Your task to perform on an android device: install app "Speedtest by Ookla" Image 0: 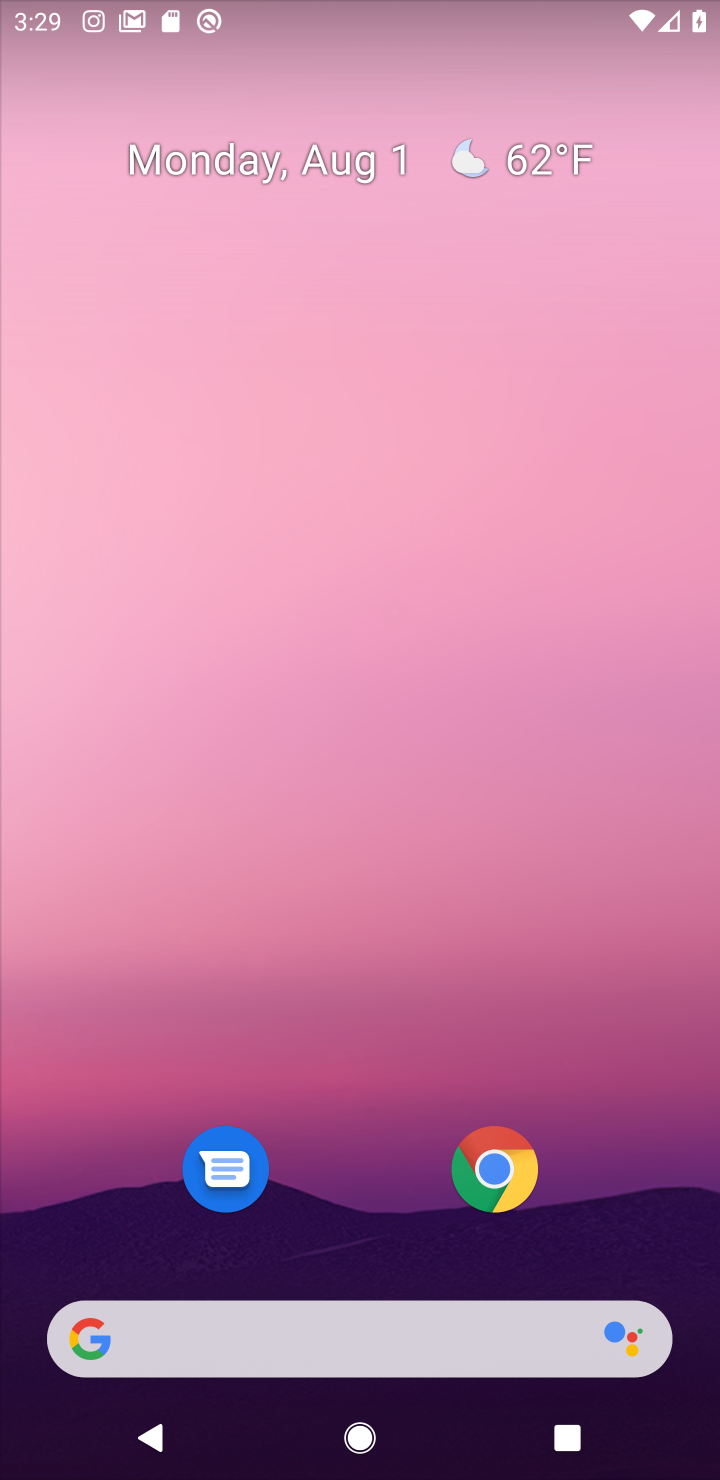
Step 0: drag from (347, 1233) to (344, 486)
Your task to perform on an android device: install app "Speedtest by Ookla" Image 1: 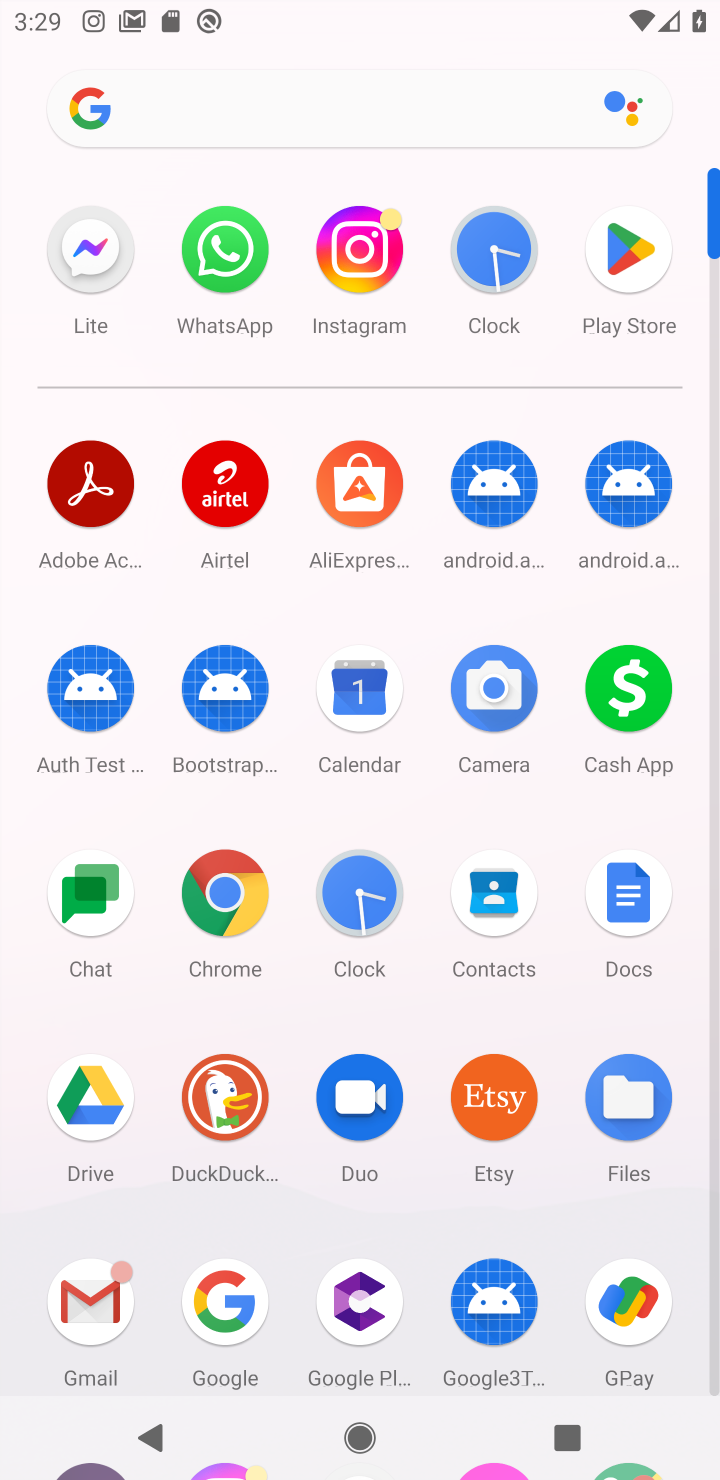
Step 1: drag from (544, 880) to (536, 744)
Your task to perform on an android device: install app "Speedtest by Ookla" Image 2: 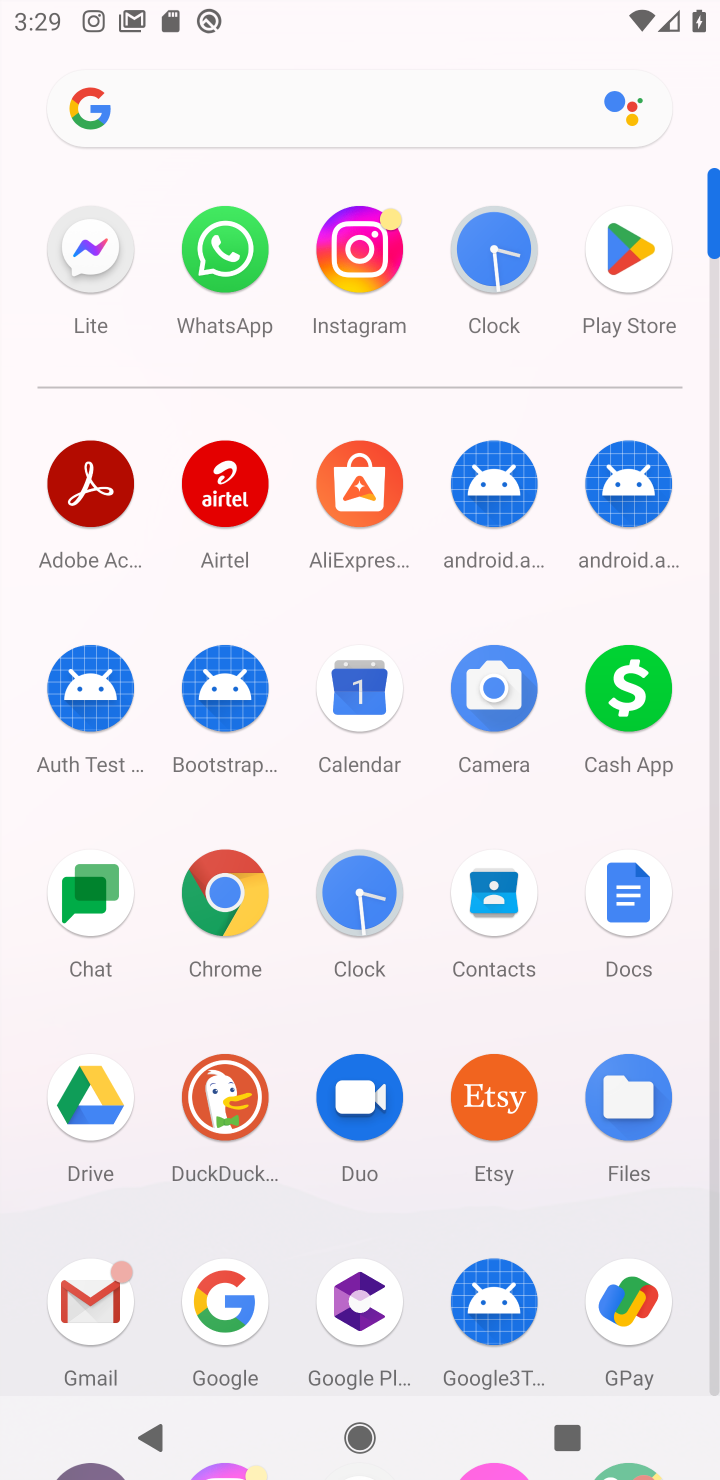
Step 2: click (606, 318)
Your task to perform on an android device: install app "Speedtest by Ookla" Image 3: 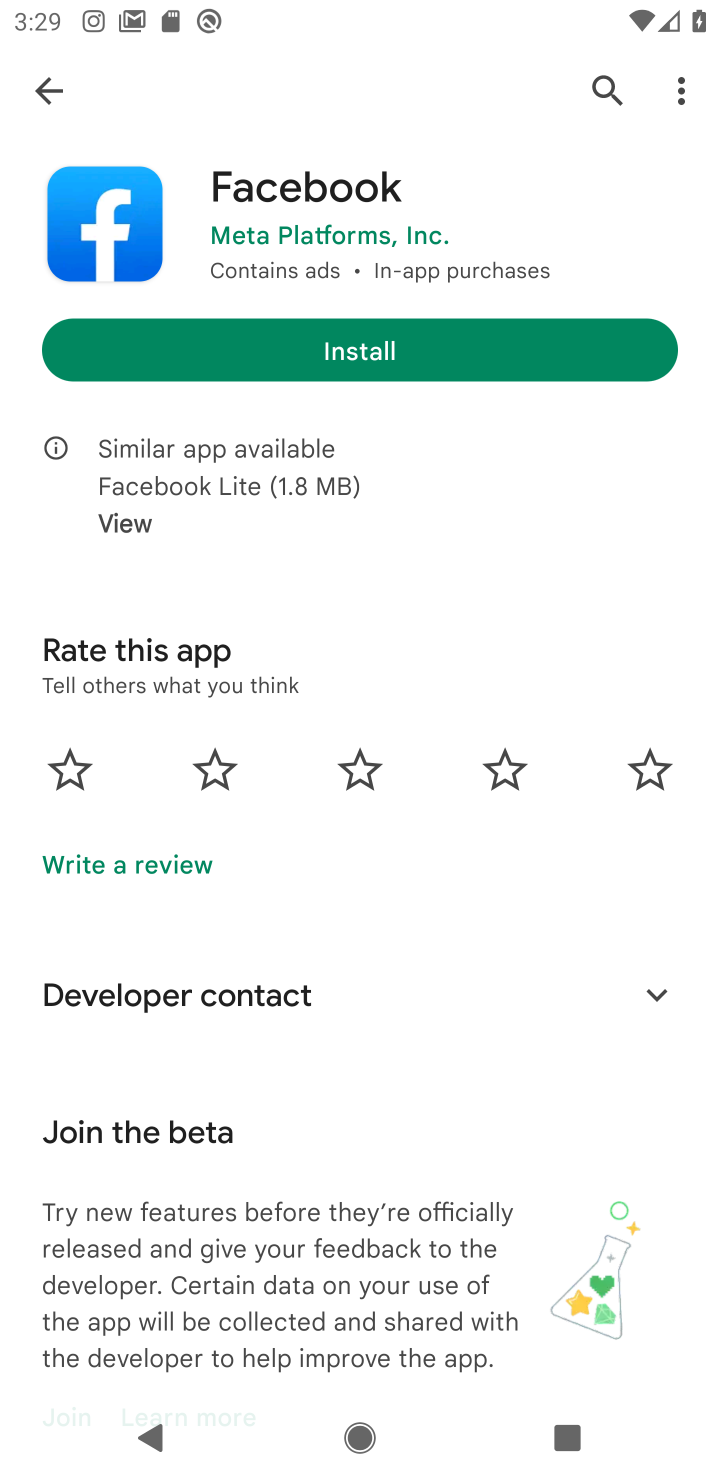
Step 3: click (45, 98)
Your task to perform on an android device: install app "Speedtest by Ookla" Image 4: 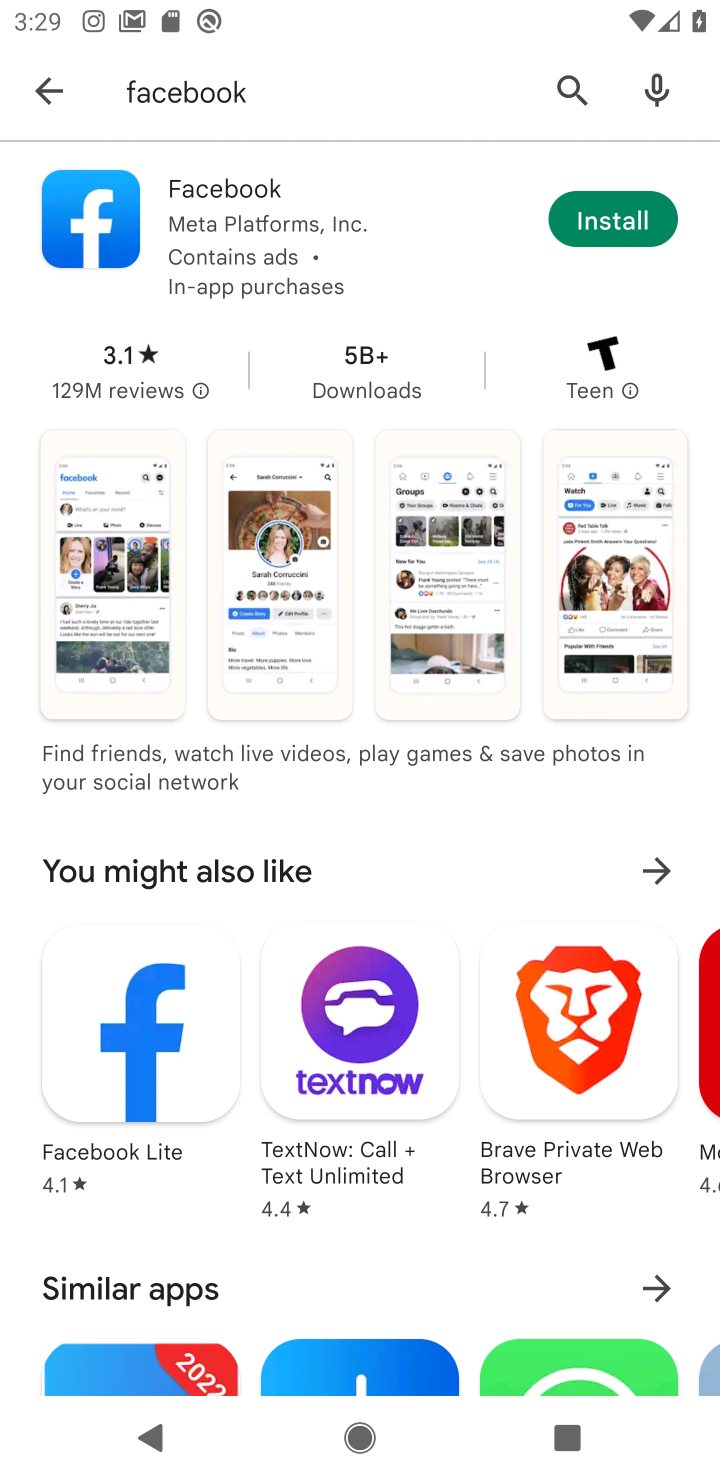
Step 4: click (51, 82)
Your task to perform on an android device: install app "Speedtest by Ookla" Image 5: 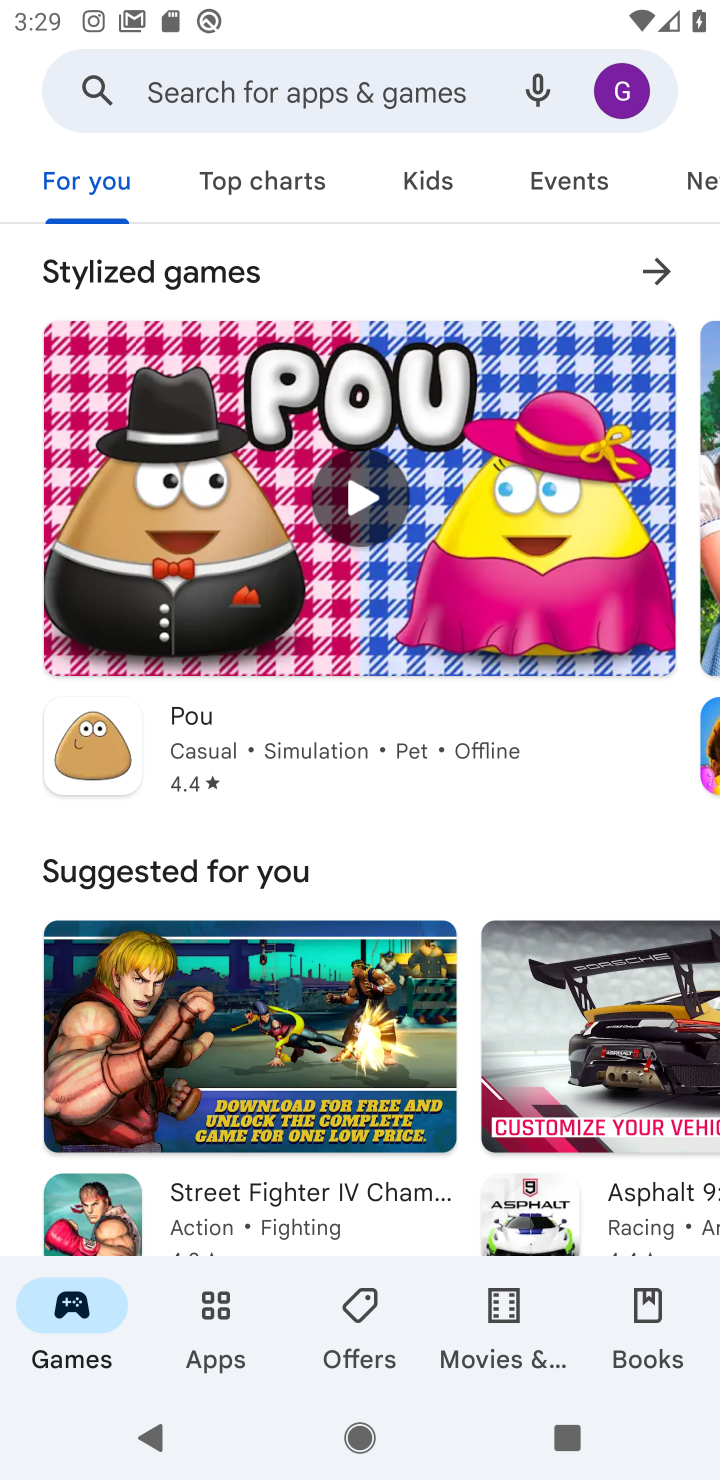
Step 5: click (449, 104)
Your task to perform on an android device: install app "Speedtest by Ookla" Image 6: 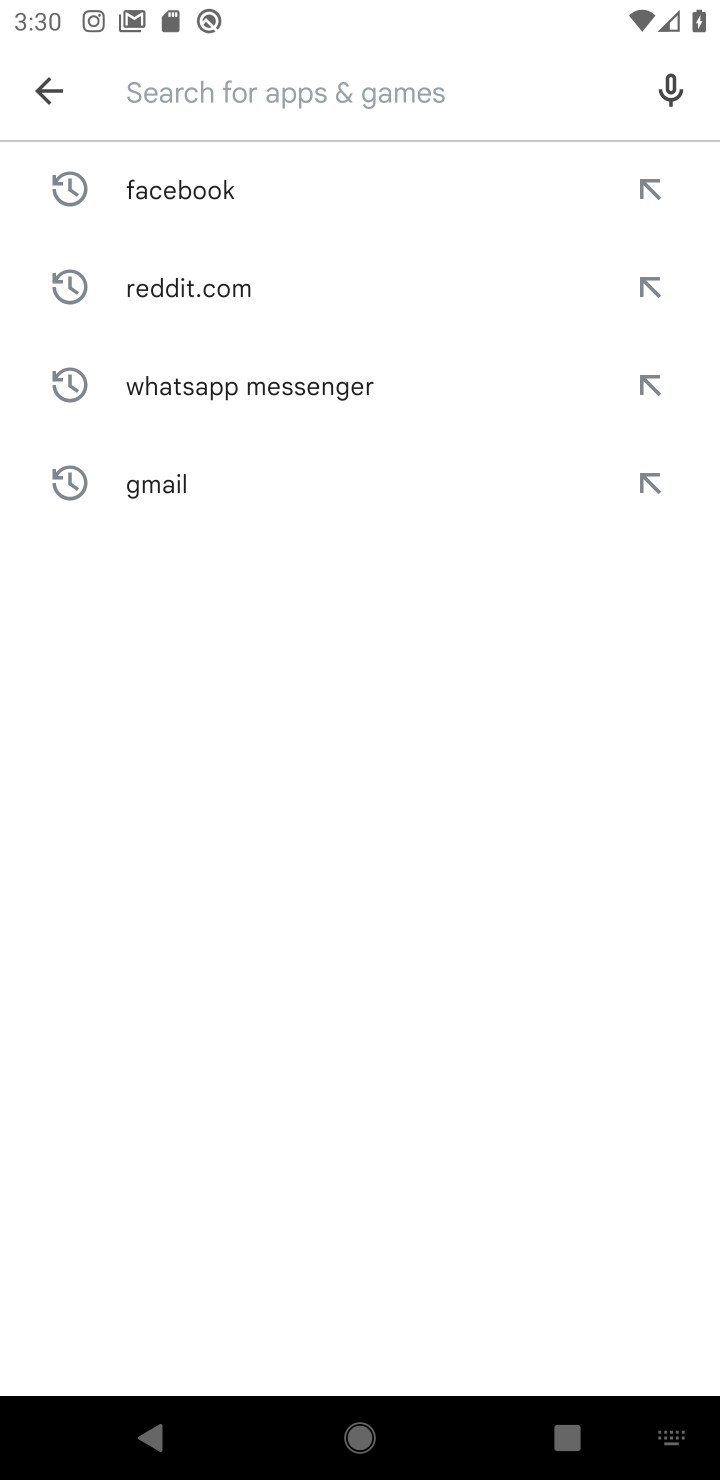
Step 6: type "Speedtest by Ookla"
Your task to perform on an android device: install app "Speedtest by Ookla" Image 7: 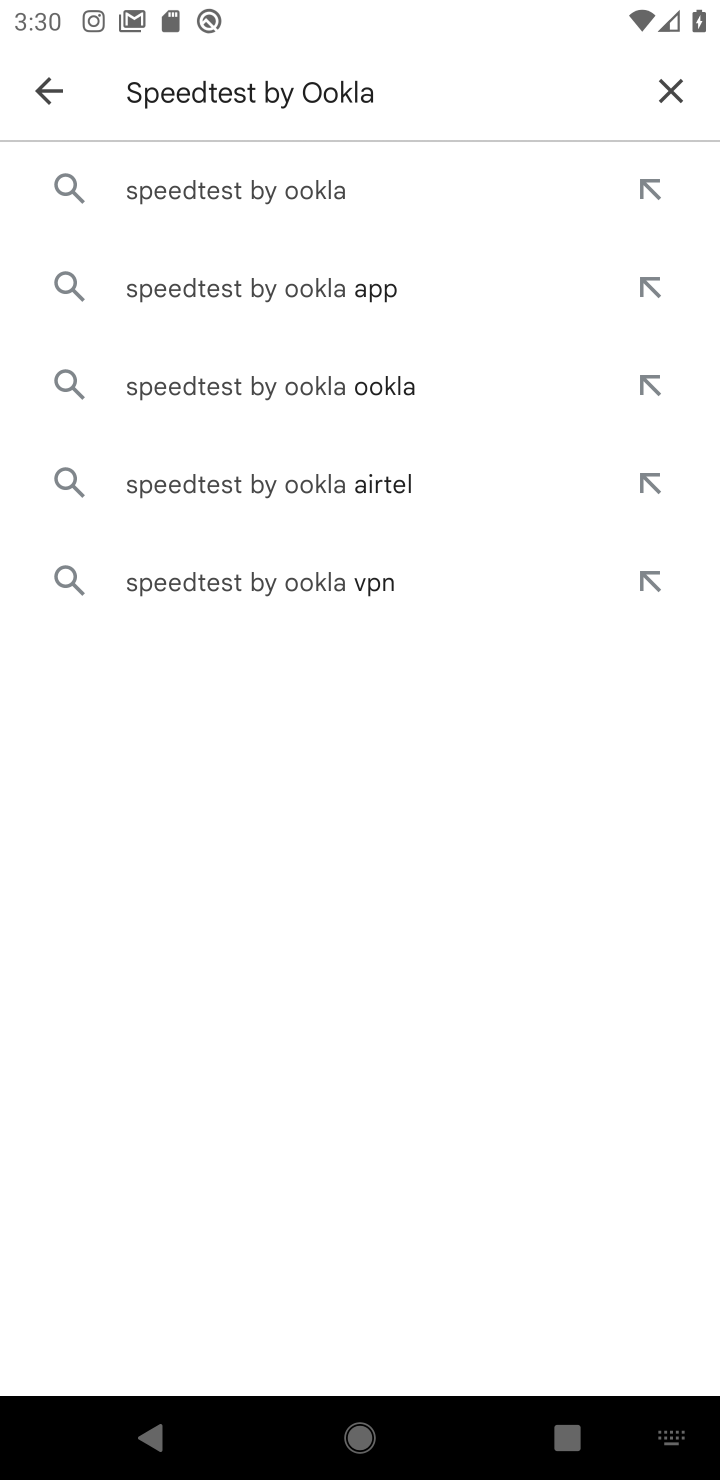
Step 7: click (324, 187)
Your task to perform on an android device: install app "Speedtest by Ookla" Image 8: 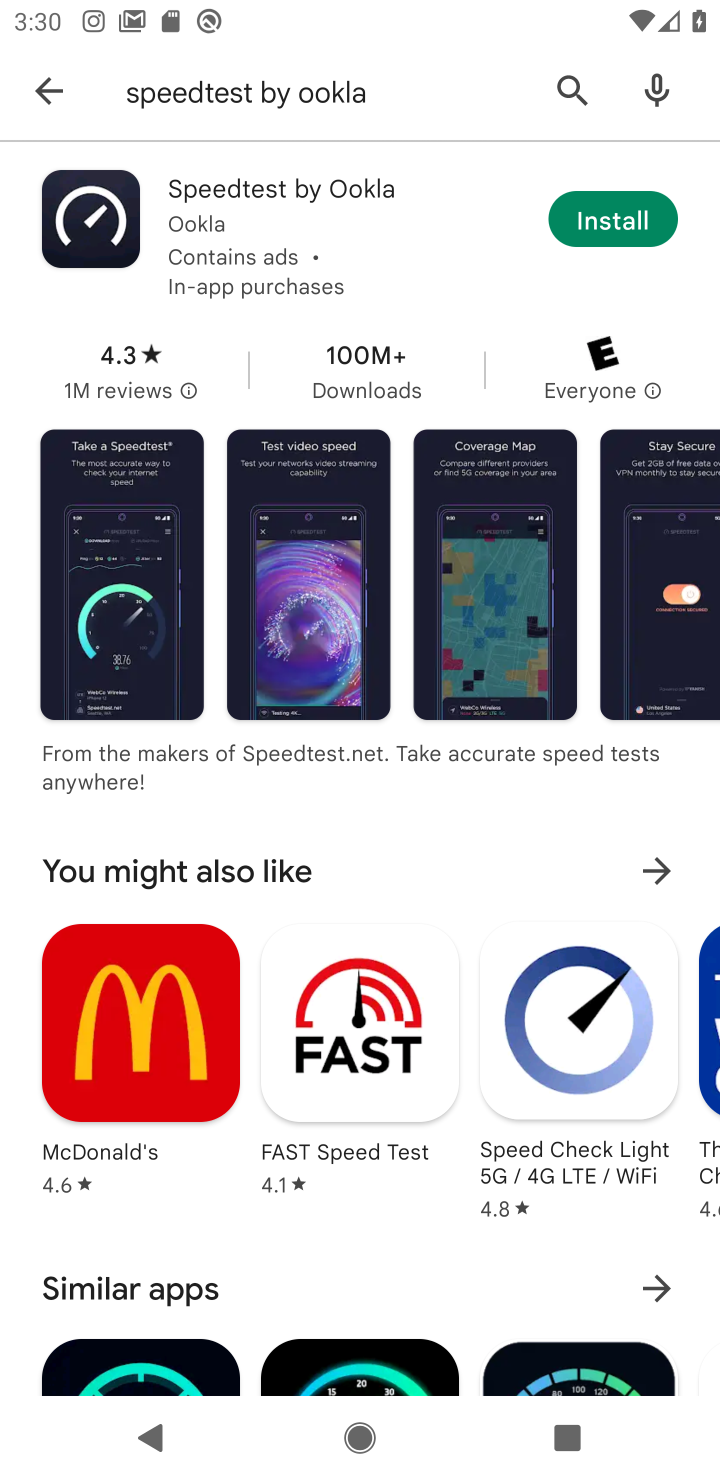
Step 8: click (639, 224)
Your task to perform on an android device: install app "Speedtest by Ookla" Image 9: 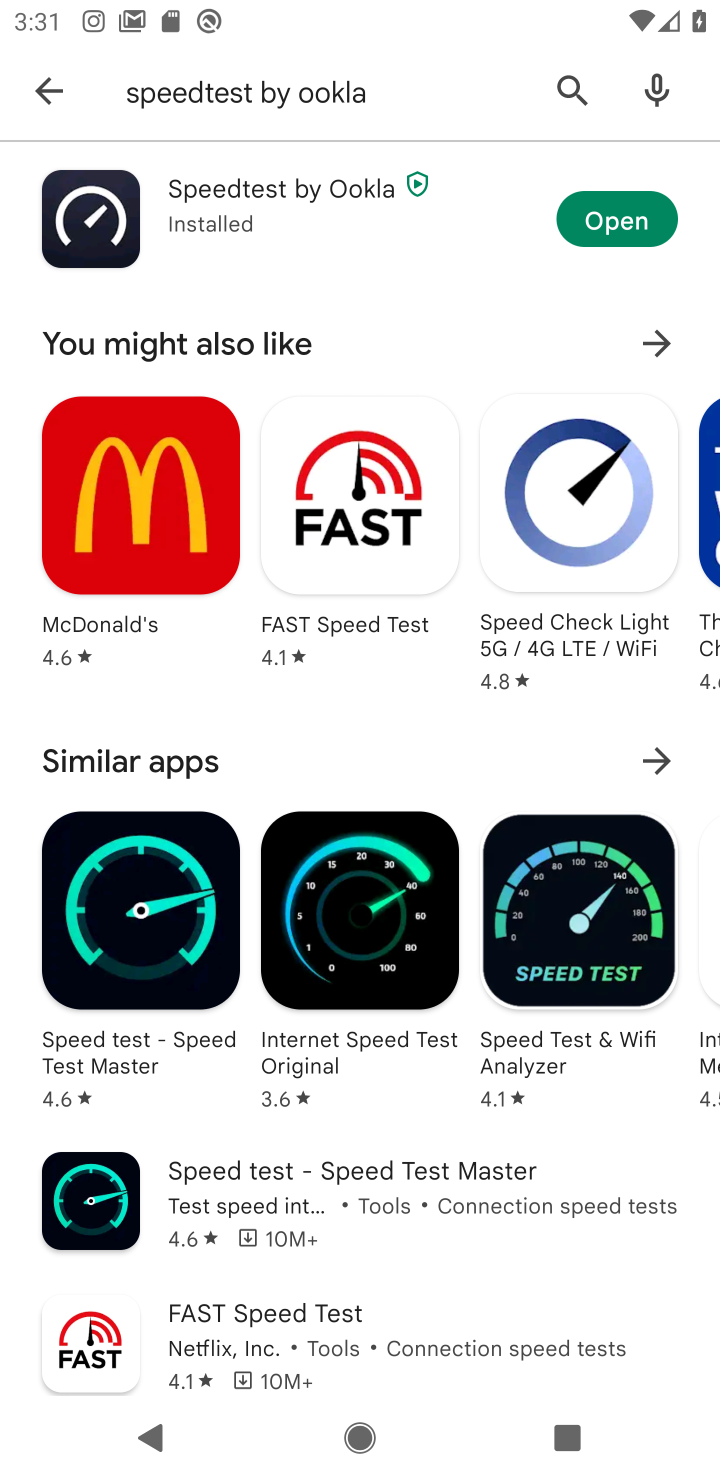
Step 9: click (607, 233)
Your task to perform on an android device: install app "Speedtest by Ookla" Image 10: 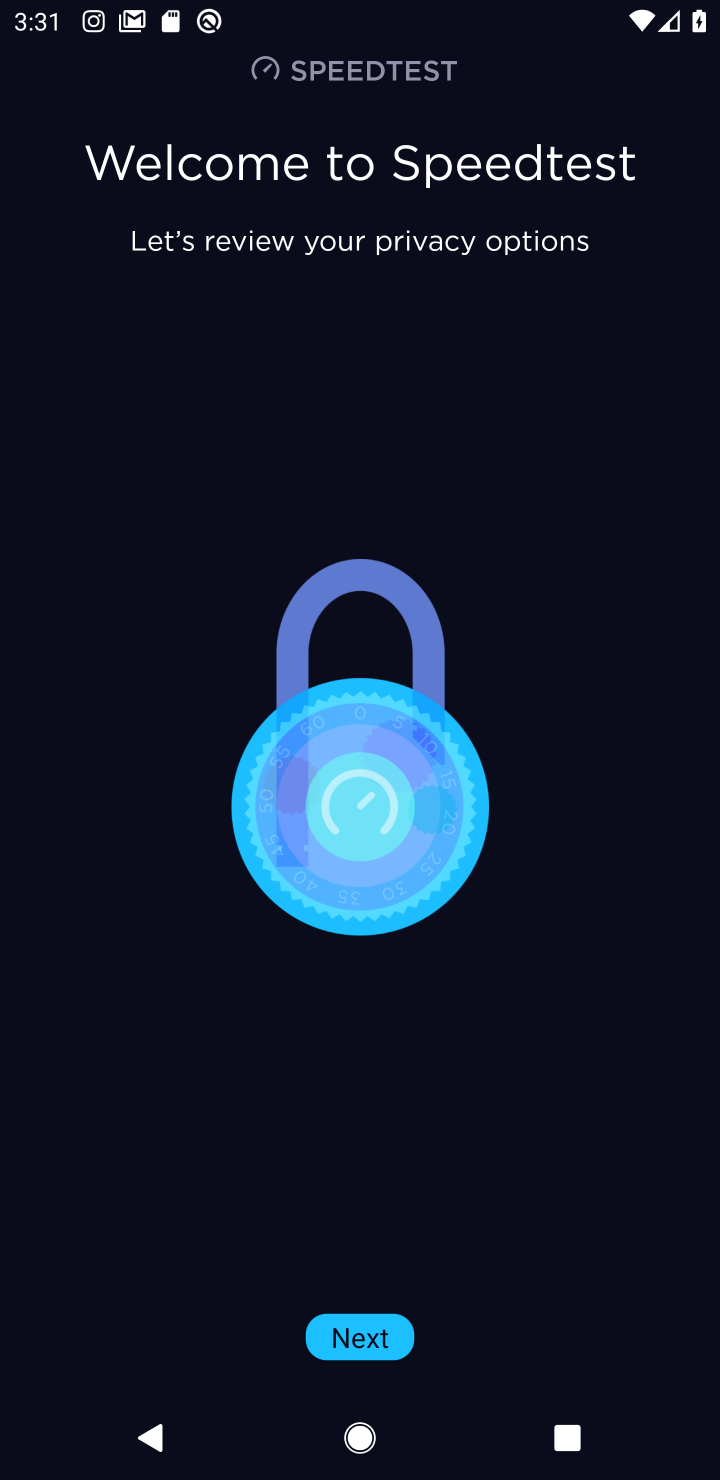
Step 10: task complete